Your task to perform on an android device: turn on javascript in the chrome app Image 0: 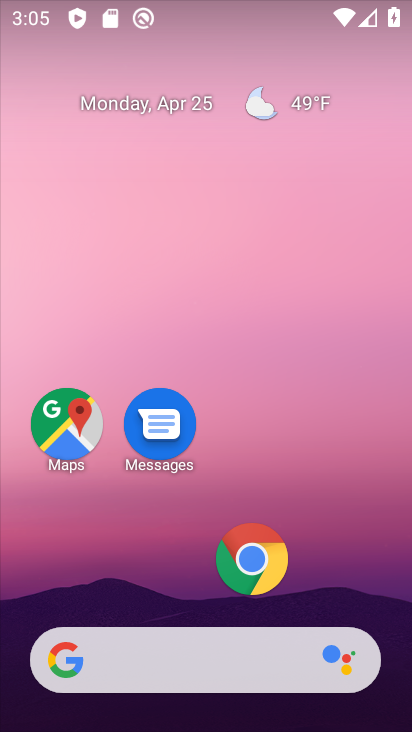
Step 0: click (243, 573)
Your task to perform on an android device: turn on javascript in the chrome app Image 1: 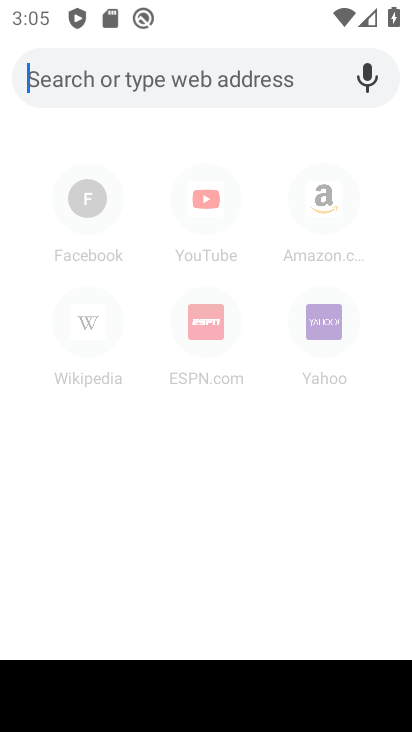
Step 1: press back button
Your task to perform on an android device: turn on javascript in the chrome app Image 2: 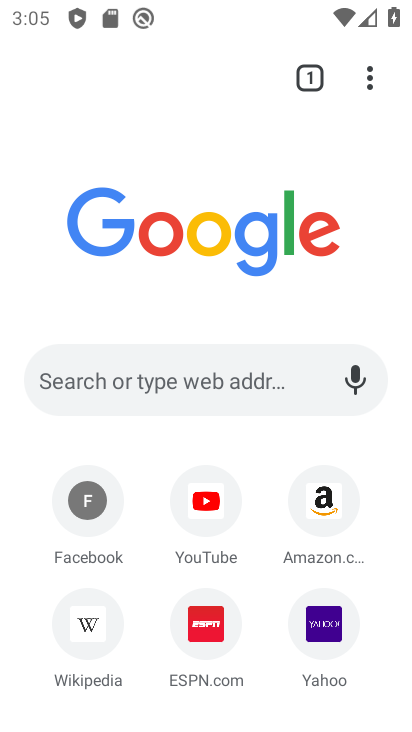
Step 2: click (374, 73)
Your task to perform on an android device: turn on javascript in the chrome app Image 3: 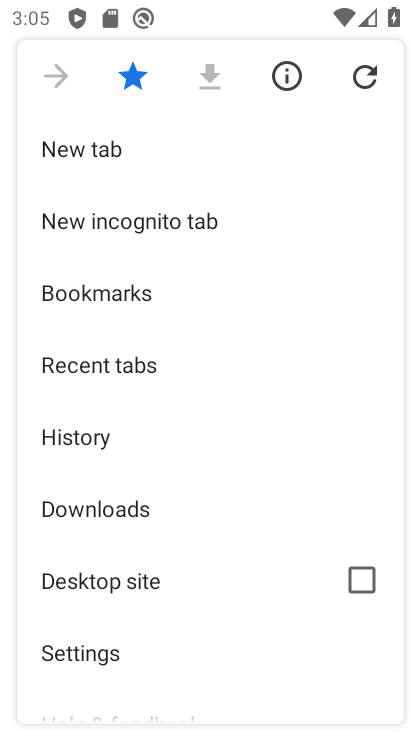
Step 3: drag from (133, 661) to (140, 439)
Your task to perform on an android device: turn on javascript in the chrome app Image 4: 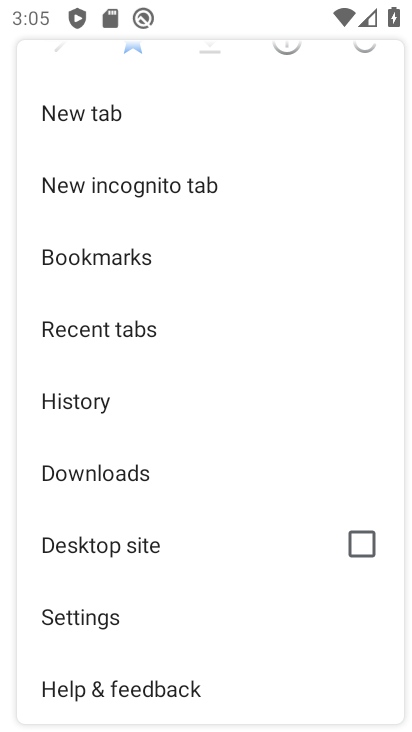
Step 4: click (99, 612)
Your task to perform on an android device: turn on javascript in the chrome app Image 5: 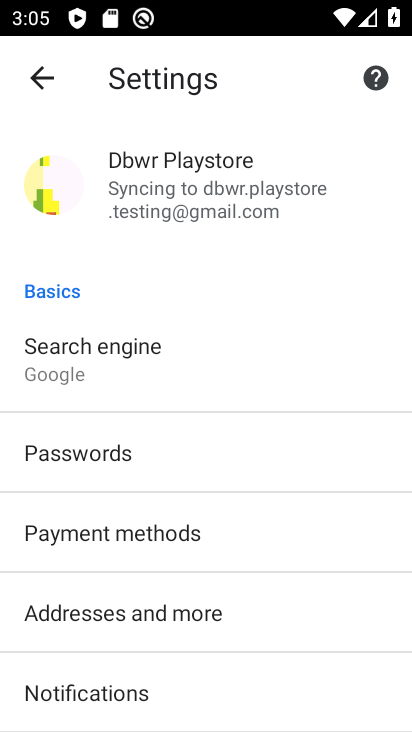
Step 5: drag from (170, 690) to (166, 177)
Your task to perform on an android device: turn on javascript in the chrome app Image 6: 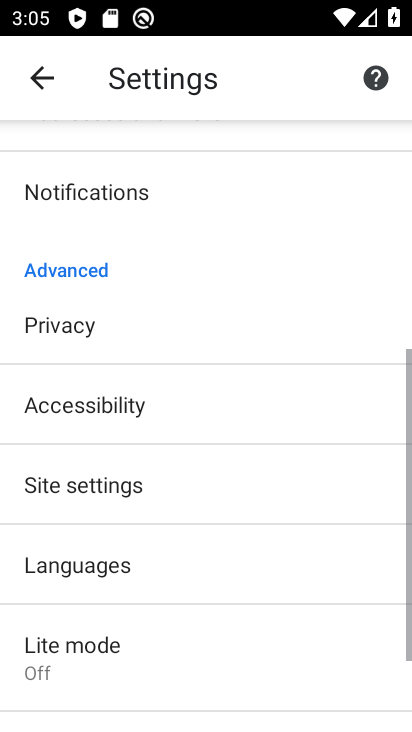
Step 6: click (97, 485)
Your task to perform on an android device: turn on javascript in the chrome app Image 7: 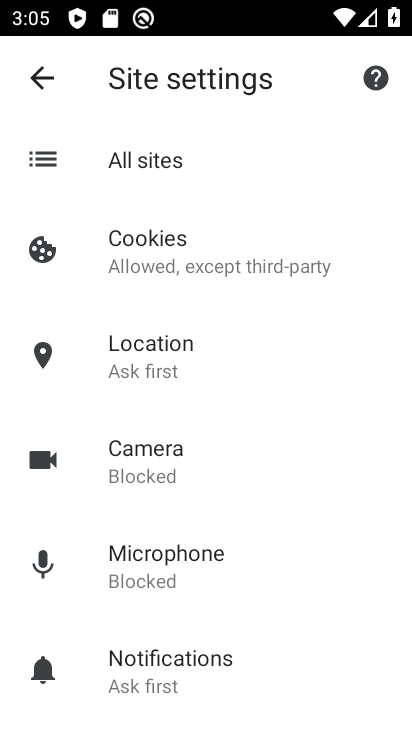
Step 7: drag from (198, 571) to (204, 184)
Your task to perform on an android device: turn on javascript in the chrome app Image 8: 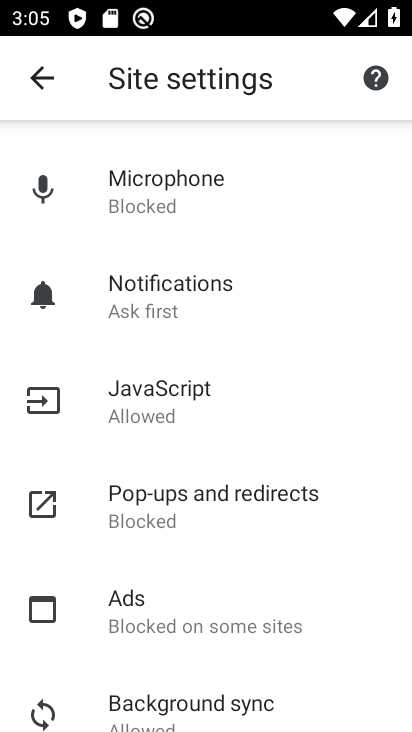
Step 8: click (189, 421)
Your task to perform on an android device: turn on javascript in the chrome app Image 9: 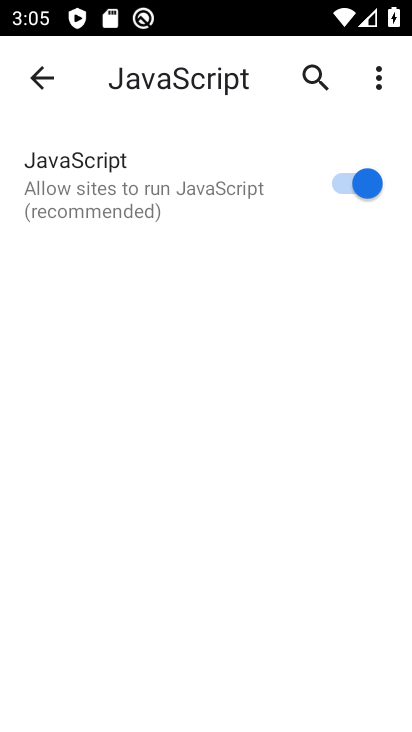
Step 9: task complete